Your task to perform on an android device: turn off picture-in-picture Image 0: 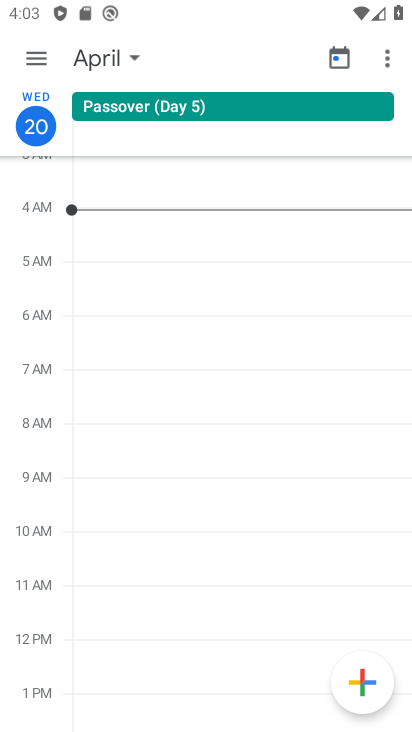
Step 0: press home button
Your task to perform on an android device: turn off picture-in-picture Image 1: 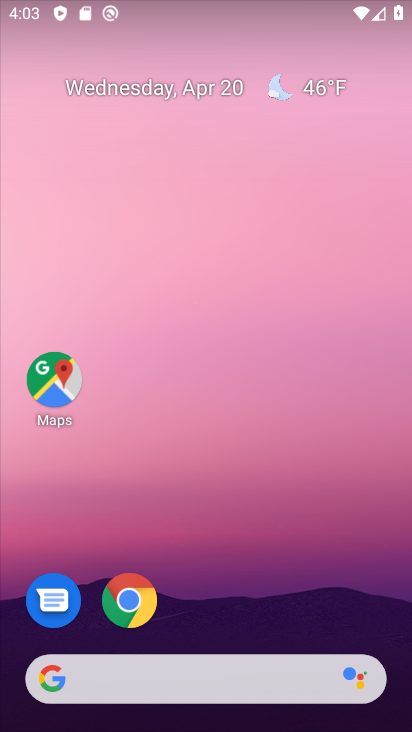
Step 1: drag from (240, 555) to (253, 61)
Your task to perform on an android device: turn off picture-in-picture Image 2: 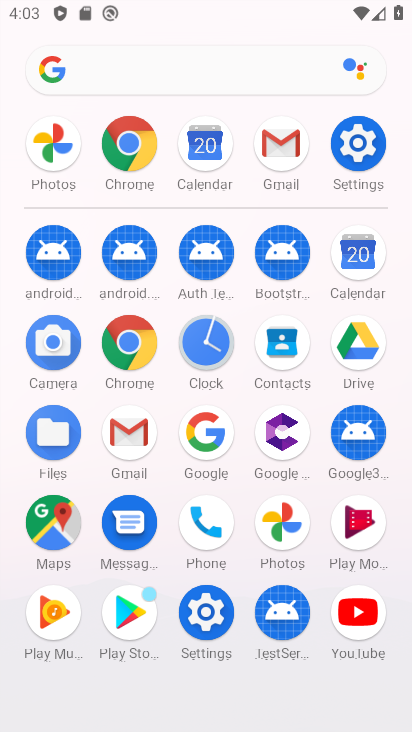
Step 2: click (354, 149)
Your task to perform on an android device: turn off picture-in-picture Image 3: 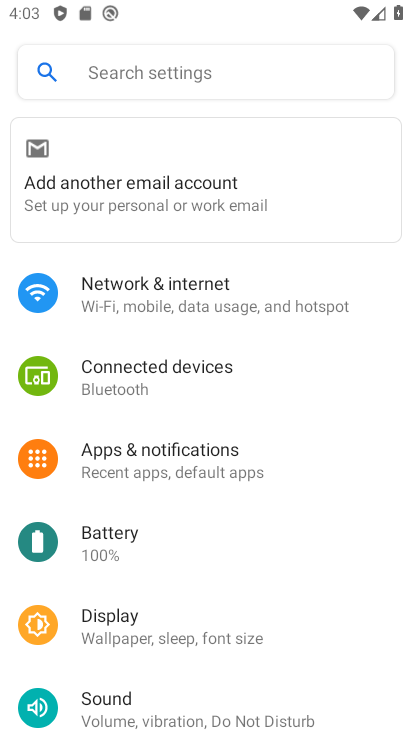
Step 3: click (193, 467)
Your task to perform on an android device: turn off picture-in-picture Image 4: 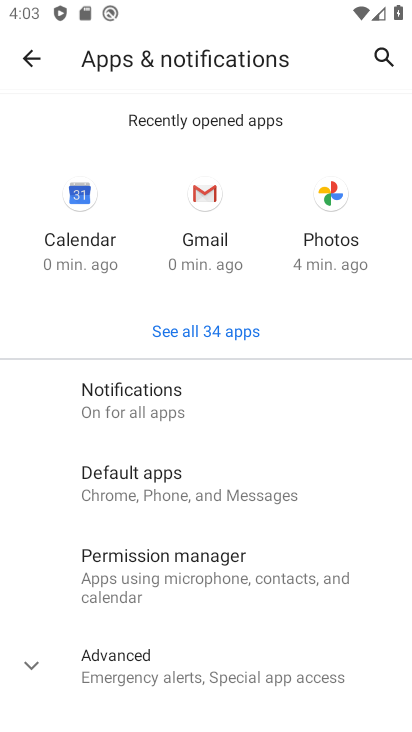
Step 4: drag from (218, 574) to (236, 261)
Your task to perform on an android device: turn off picture-in-picture Image 5: 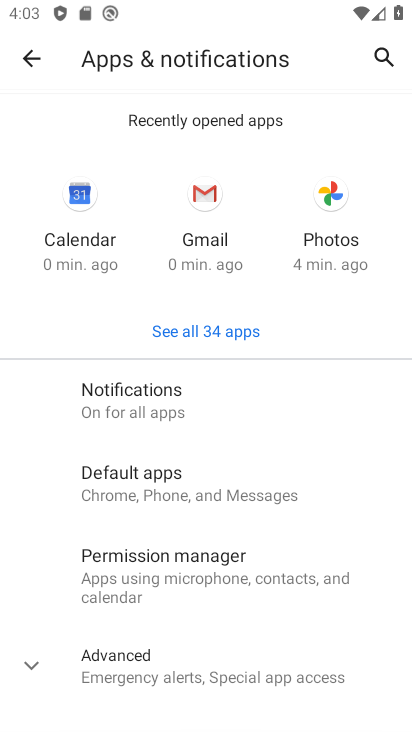
Step 5: click (184, 642)
Your task to perform on an android device: turn off picture-in-picture Image 6: 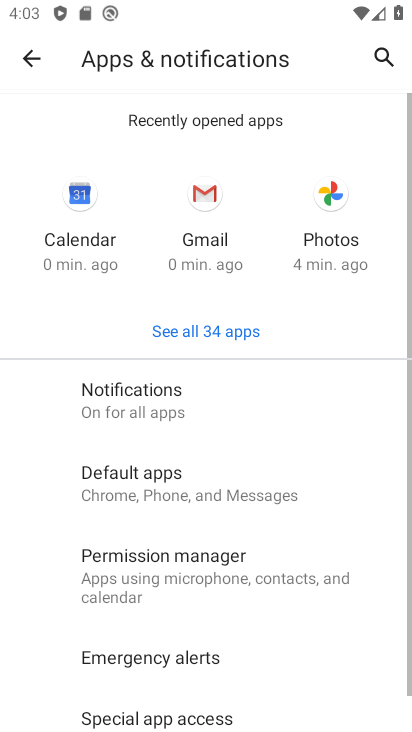
Step 6: drag from (194, 665) to (213, 416)
Your task to perform on an android device: turn off picture-in-picture Image 7: 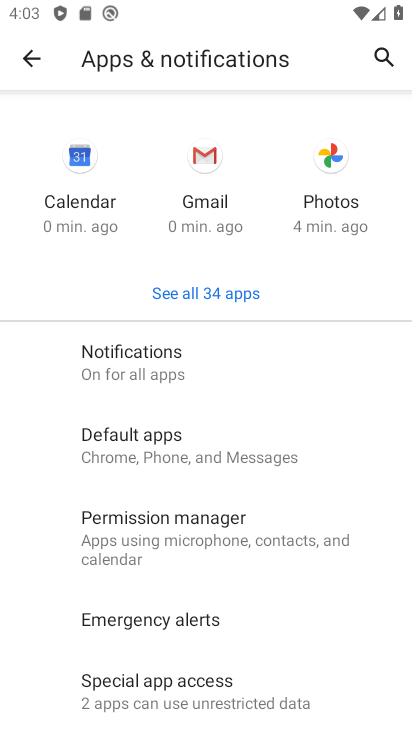
Step 7: click (199, 684)
Your task to perform on an android device: turn off picture-in-picture Image 8: 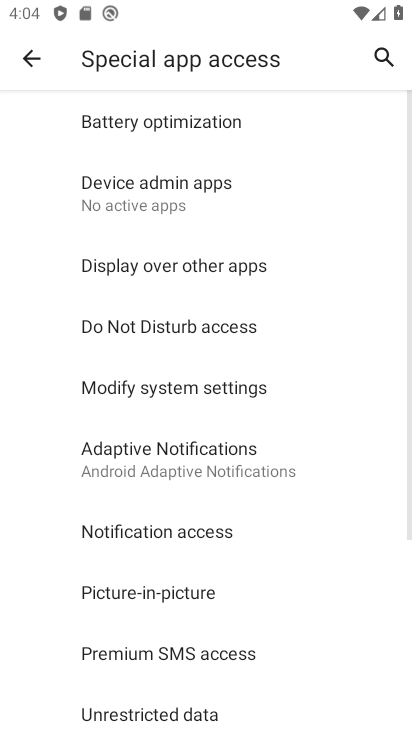
Step 8: click (200, 589)
Your task to perform on an android device: turn off picture-in-picture Image 9: 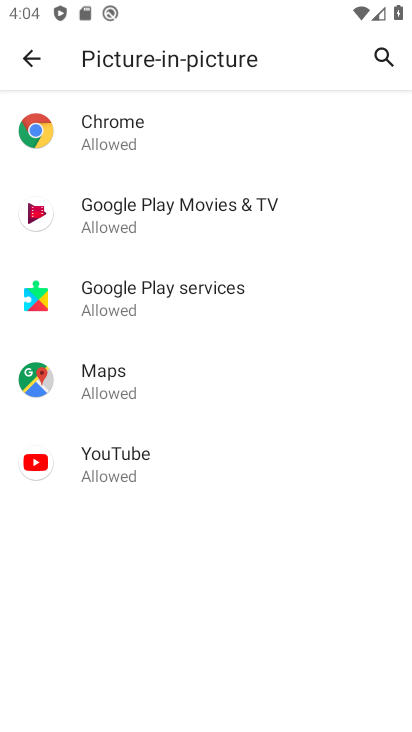
Step 9: click (274, 135)
Your task to perform on an android device: turn off picture-in-picture Image 10: 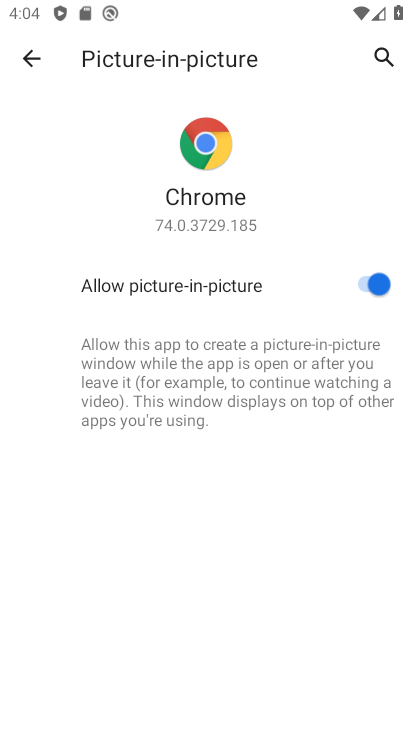
Step 10: click (377, 289)
Your task to perform on an android device: turn off picture-in-picture Image 11: 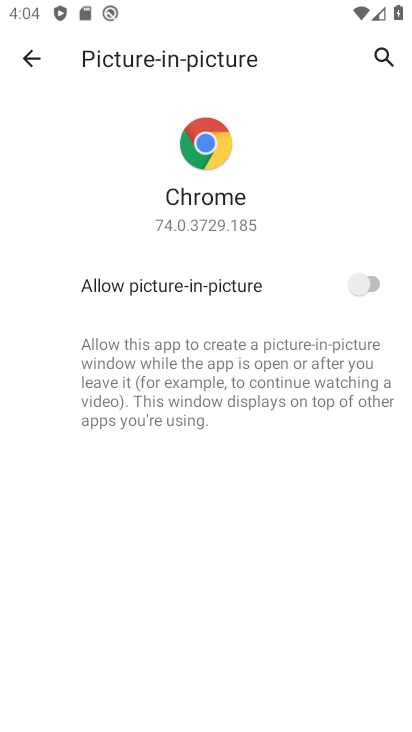
Step 11: task complete